Your task to perform on an android device: Clear all items from cart on amazon.com. Search for "logitech g pro" on amazon.com, select the first entry, add it to the cart, then select checkout. Image 0: 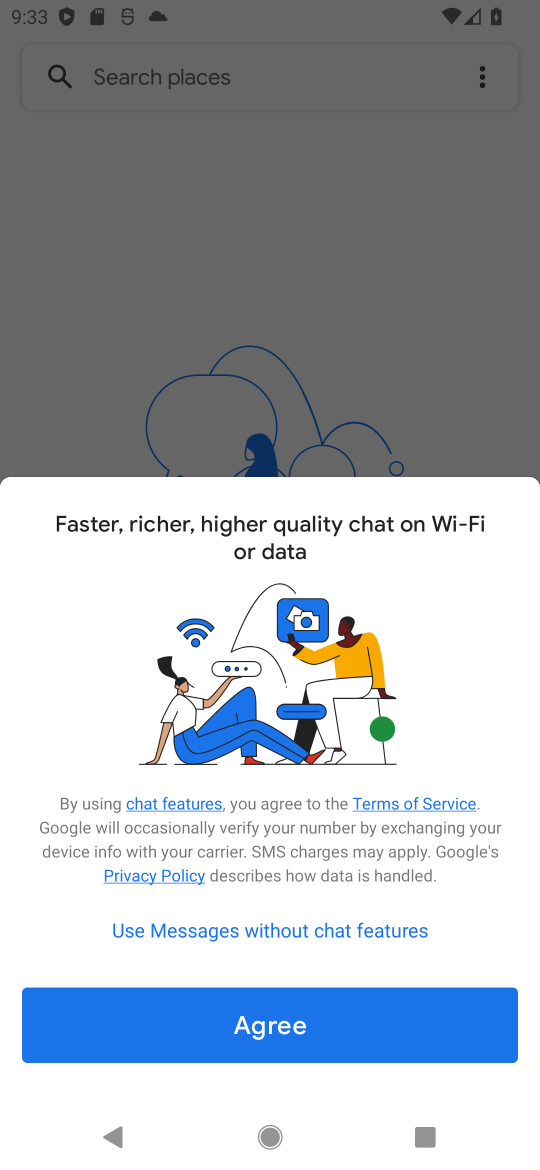
Step 0: press home button
Your task to perform on an android device: Clear all items from cart on amazon.com. Search for "logitech g pro" on amazon.com, select the first entry, add it to the cart, then select checkout. Image 1: 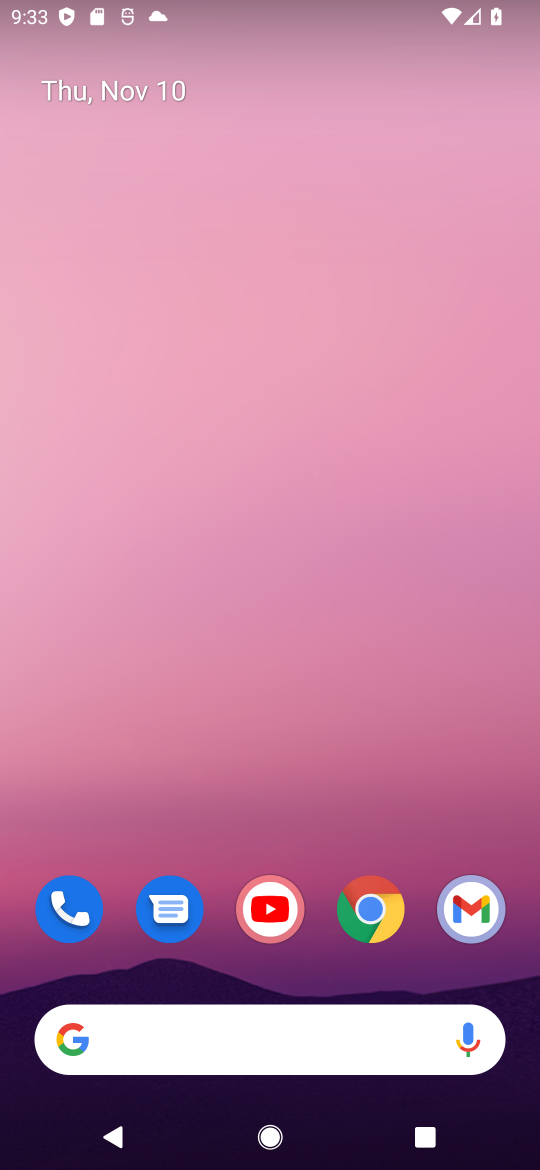
Step 1: drag from (228, 923) to (274, 342)
Your task to perform on an android device: Clear all items from cart on amazon.com. Search for "logitech g pro" on amazon.com, select the first entry, add it to the cart, then select checkout. Image 2: 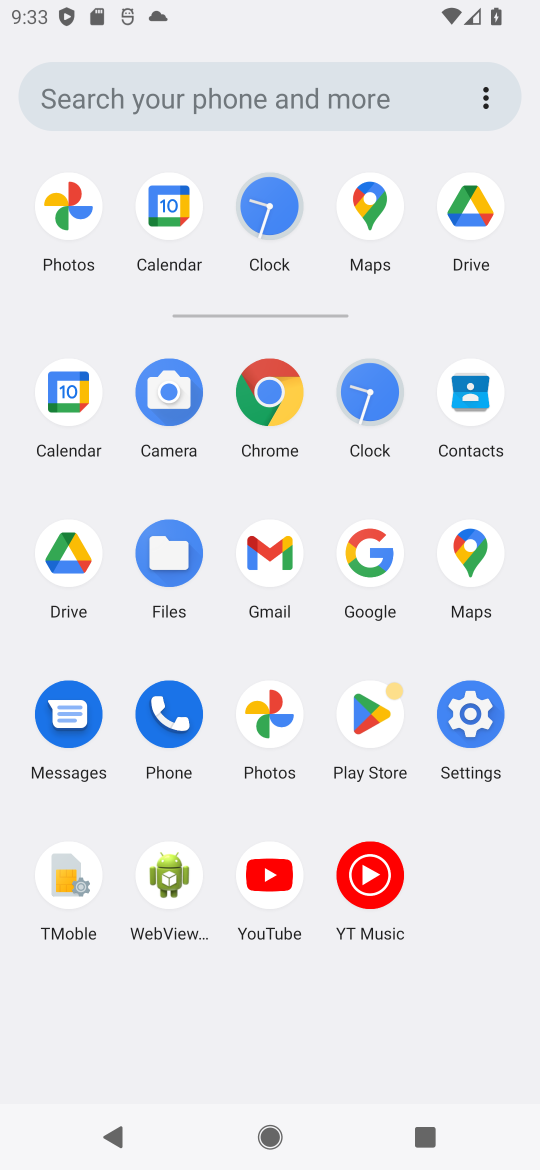
Step 2: click (362, 536)
Your task to perform on an android device: Clear all items from cart on amazon.com. Search for "logitech g pro" on amazon.com, select the first entry, add it to the cart, then select checkout. Image 3: 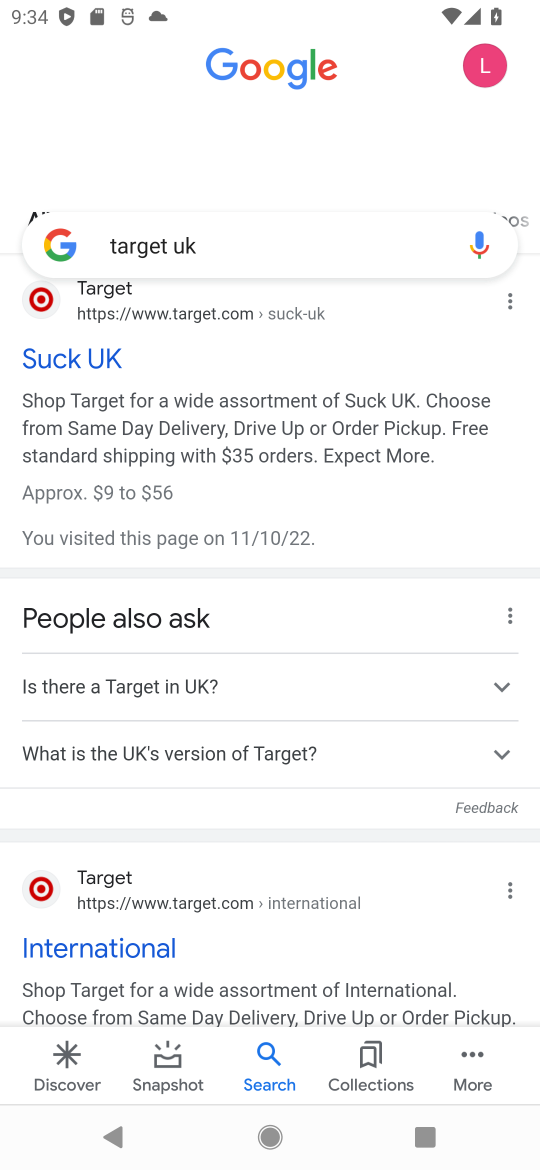
Step 3: click (269, 227)
Your task to perform on an android device: Clear all items from cart on amazon.com. Search for "logitech g pro" on amazon.com, select the first entry, add it to the cart, then select checkout. Image 4: 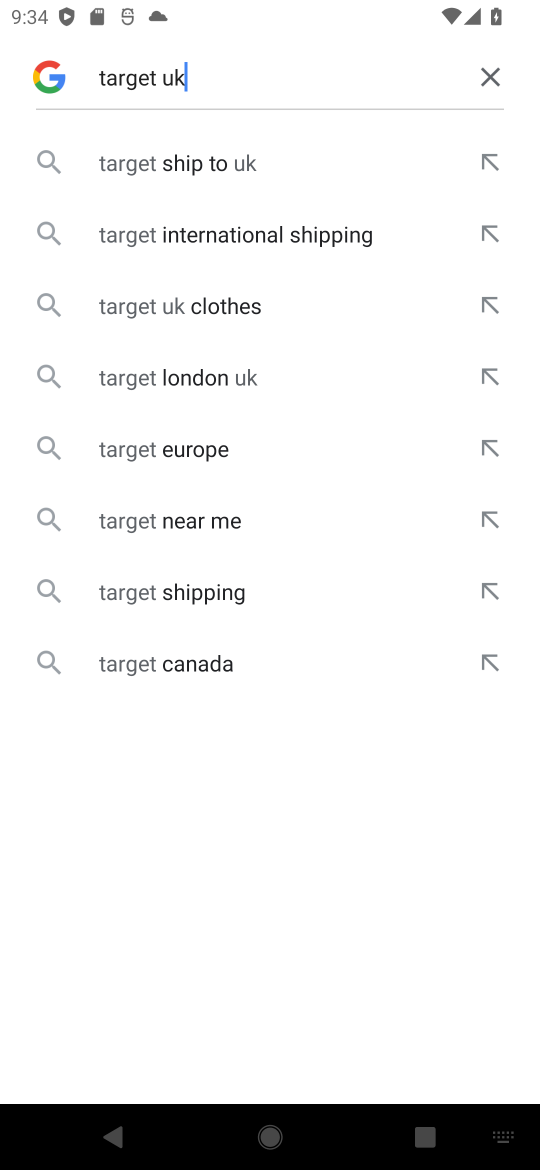
Step 4: click (478, 73)
Your task to perform on an android device: Clear all items from cart on amazon.com. Search for "logitech g pro" on amazon.com, select the first entry, add it to the cart, then select checkout. Image 5: 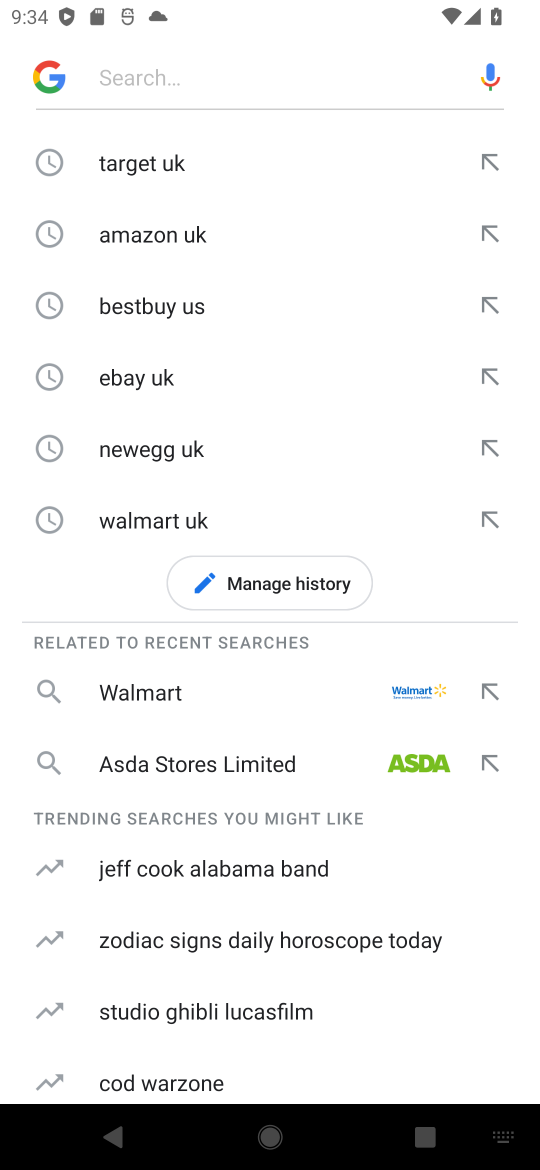
Step 5: click (304, 63)
Your task to perform on an android device: Clear all items from cart on amazon.com. Search for "logitech g pro" on amazon.com, select the first entry, add it to the cart, then select checkout. Image 6: 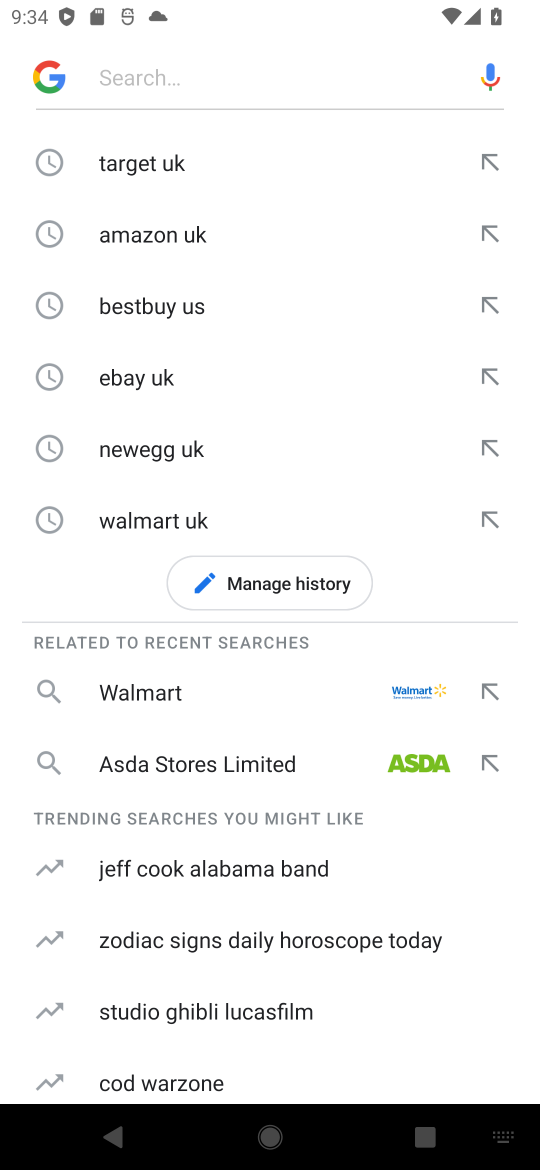
Step 6: type "amazon "
Your task to perform on an android device: Clear all items from cart on amazon.com. Search for "logitech g pro" on amazon.com, select the first entry, add it to the cart, then select checkout. Image 7: 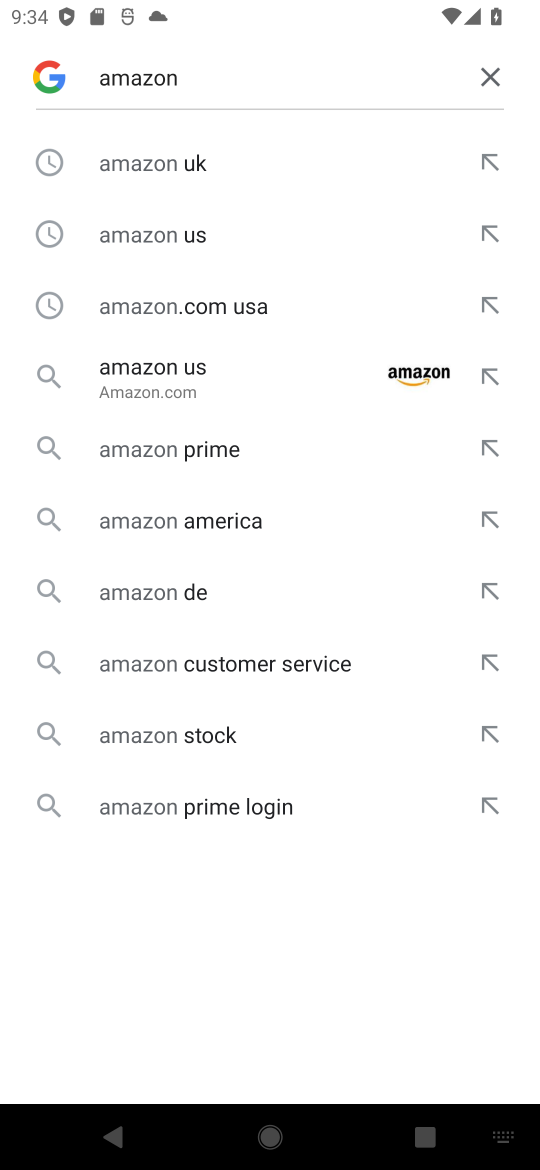
Step 7: click (199, 154)
Your task to perform on an android device: Clear all items from cart on amazon.com. Search for "logitech g pro" on amazon.com, select the first entry, add it to the cart, then select checkout. Image 8: 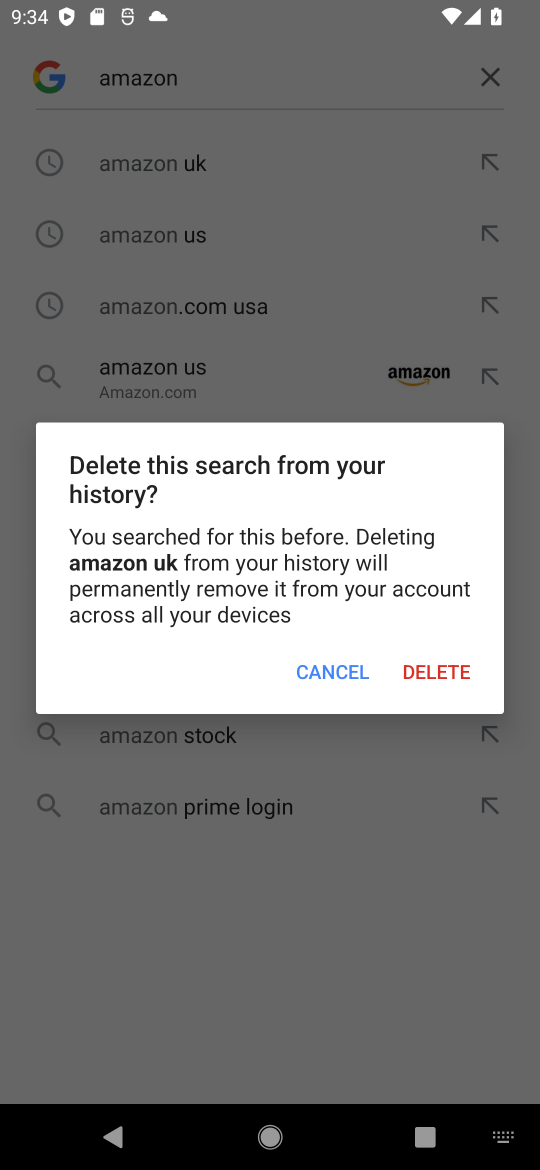
Step 8: click (324, 685)
Your task to perform on an android device: Clear all items from cart on amazon.com. Search for "logitech g pro" on amazon.com, select the first entry, add it to the cart, then select checkout. Image 9: 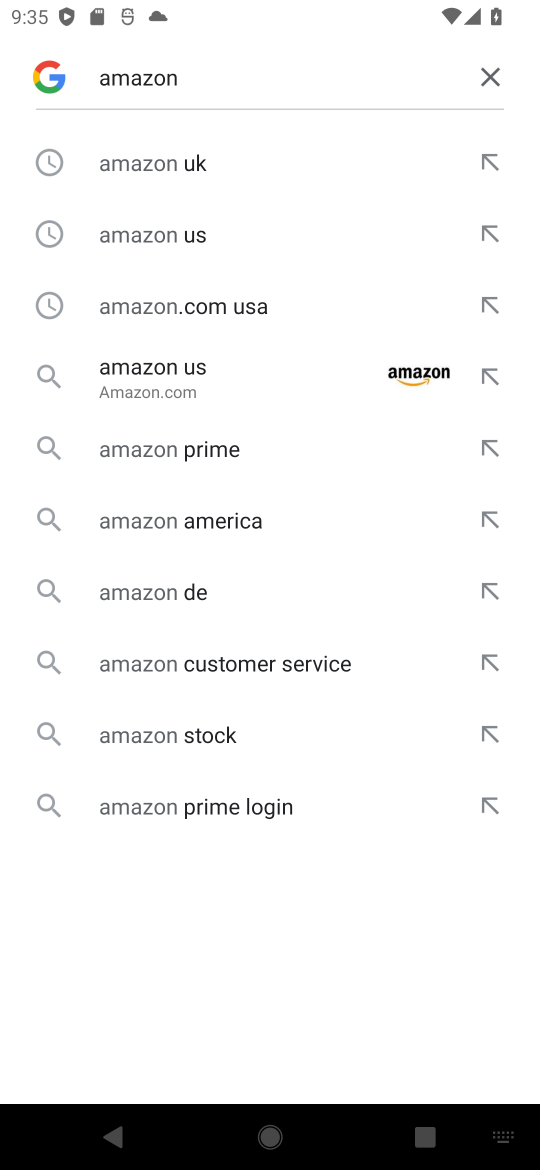
Step 9: click (194, 233)
Your task to perform on an android device: Clear all items from cart on amazon.com. Search for "logitech g pro" on amazon.com, select the first entry, add it to the cart, then select checkout. Image 10: 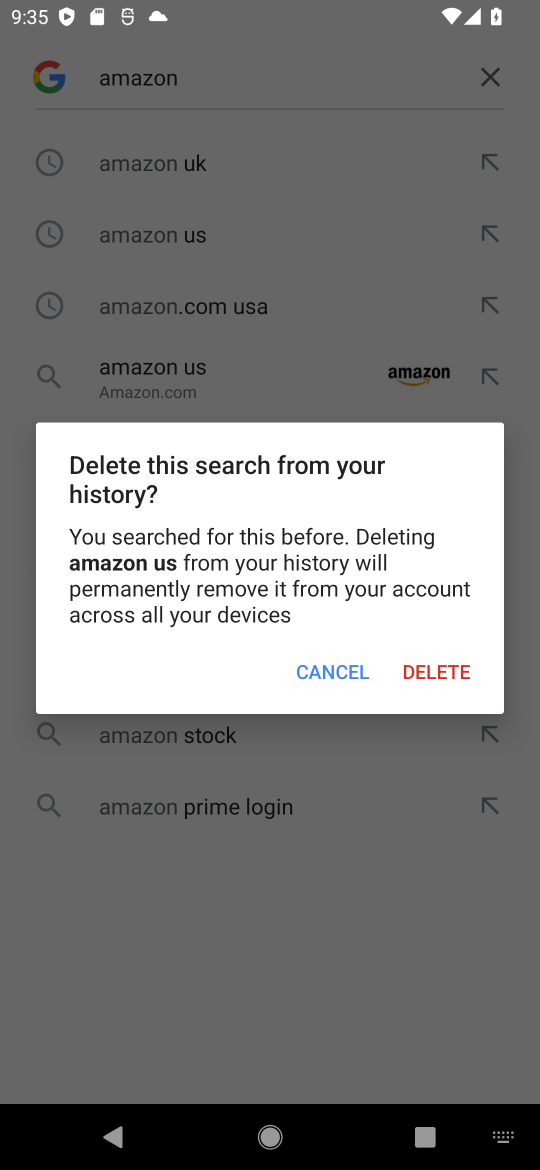
Step 10: click (310, 679)
Your task to perform on an android device: Clear all items from cart on amazon.com. Search for "logitech g pro" on amazon.com, select the first entry, add it to the cart, then select checkout. Image 11: 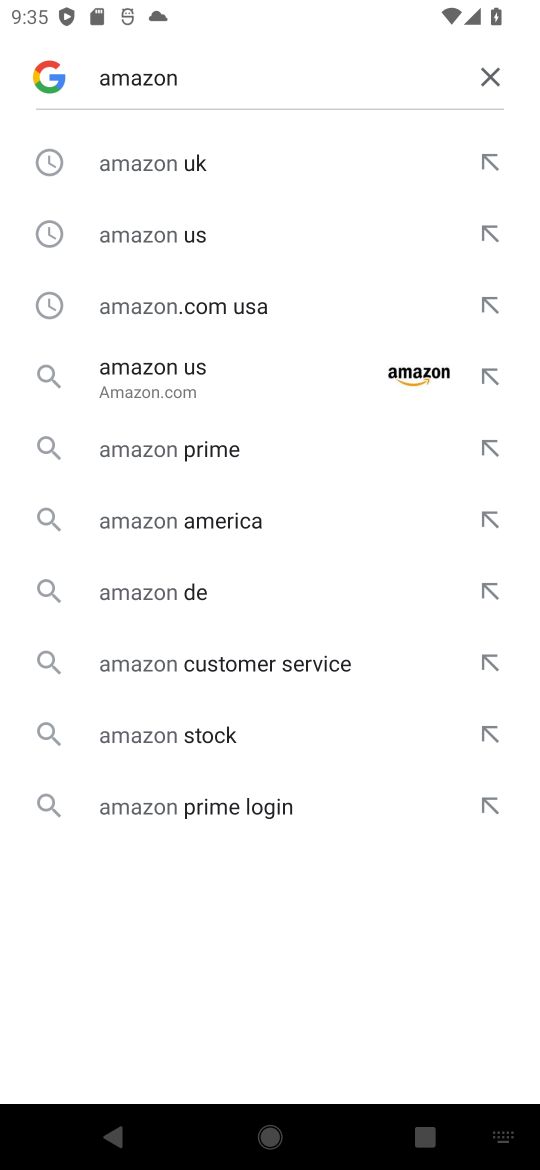
Step 11: click (199, 315)
Your task to perform on an android device: Clear all items from cart on amazon.com. Search for "logitech g pro" on amazon.com, select the first entry, add it to the cart, then select checkout. Image 12: 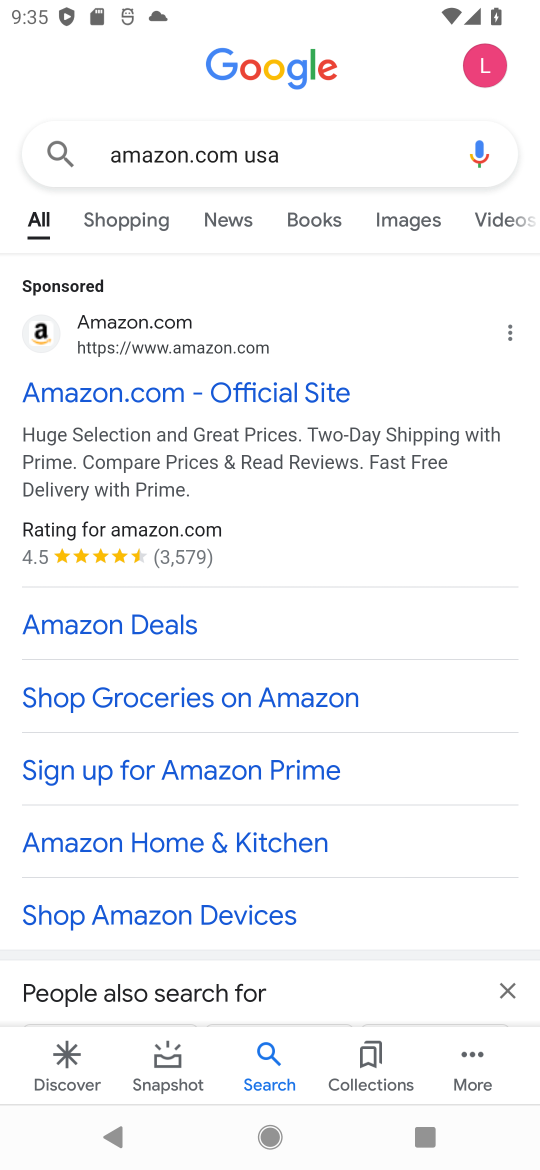
Step 12: click (39, 320)
Your task to perform on an android device: Clear all items from cart on amazon.com. Search for "logitech g pro" on amazon.com, select the first entry, add it to the cart, then select checkout. Image 13: 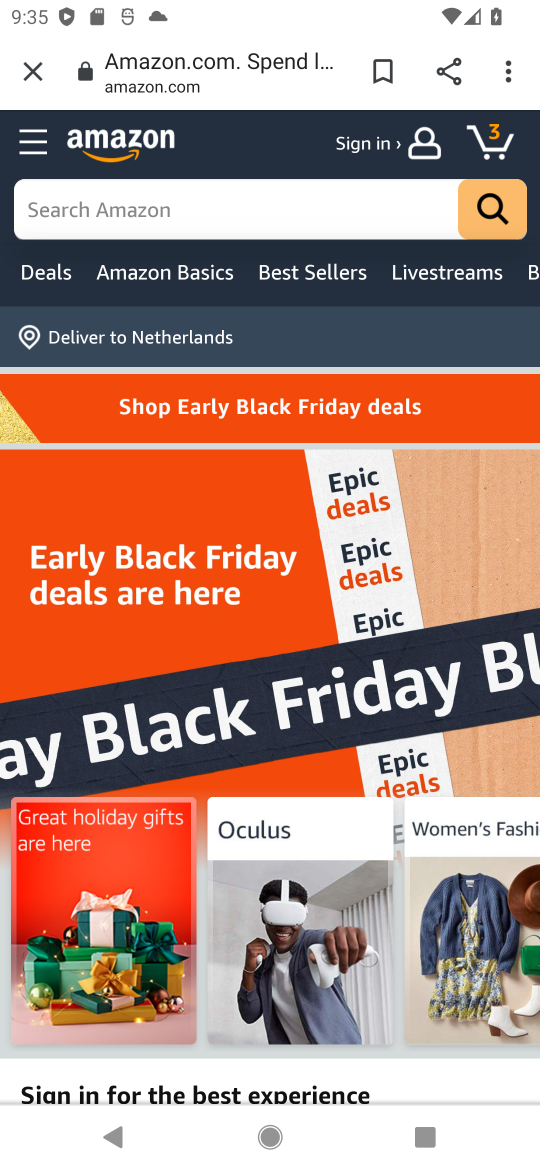
Step 13: click (184, 192)
Your task to perform on an android device: Clear all items from cart on amazon.com. Search for "logitech g pro" on amazon.com, select the first entry, add it to the cart, then select checkout. Image 14: 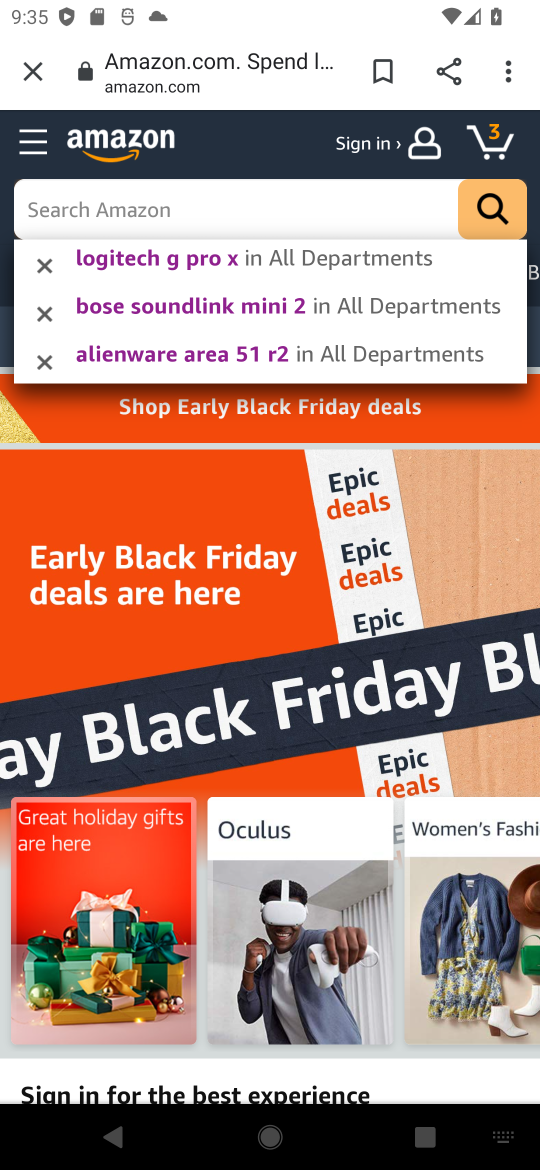
Step 14: type "logitech g pro "
Your task to perform on an android device: Clear all items from cart on amazon.com. Search for "logitech g pro" on amazon.com, select the first entry, add it to the cart, then select checkout. Image 15: 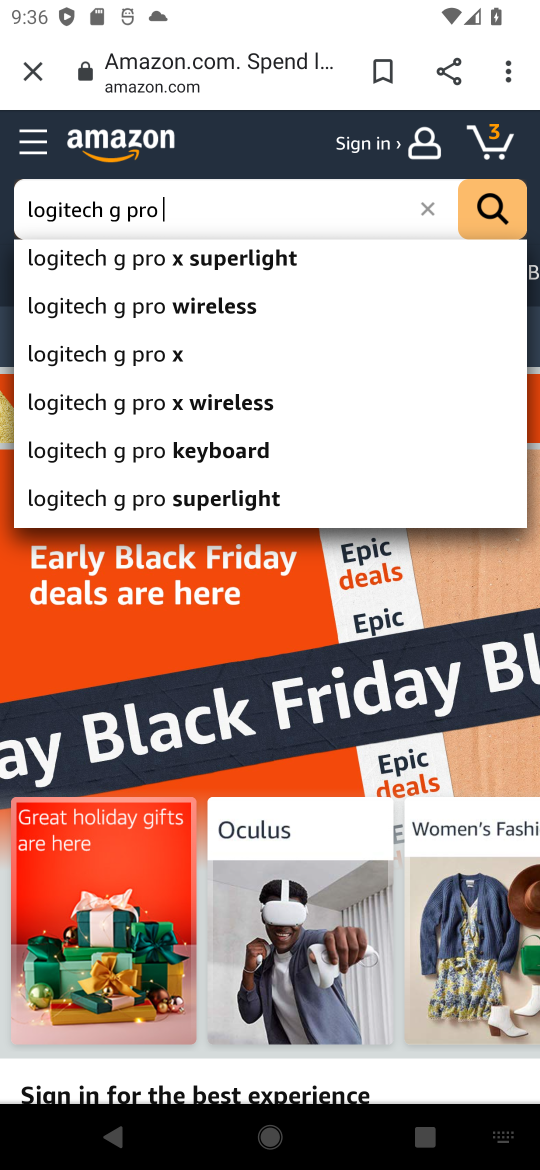
Step 15: click (117, 350)
Your task to perform on an android device: Clear all items from cart on amazon.com. Search for "logitech g pro" on amazon.com, select the first entry, add it to the cart, then select checkout. Image 16: 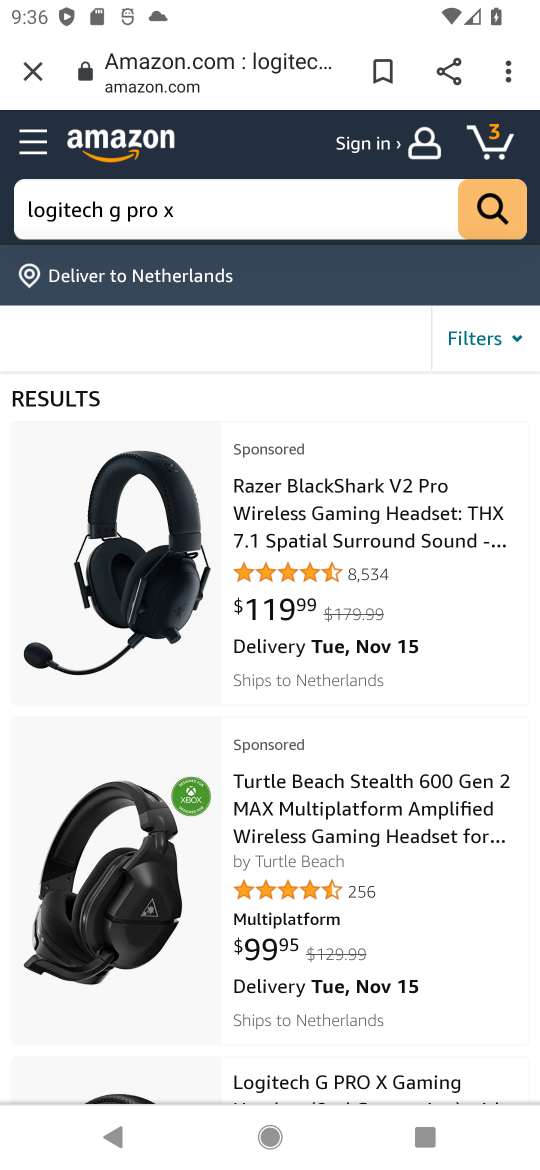
Step 16: drag from (359, 1018) to (375, 570)
Your task to perform on an android device: Clear all items from cart on amazon.com. Search for "logitech g pro" on amazon.com, select the first entry, add it to the cart, then select checkout. Image 17: 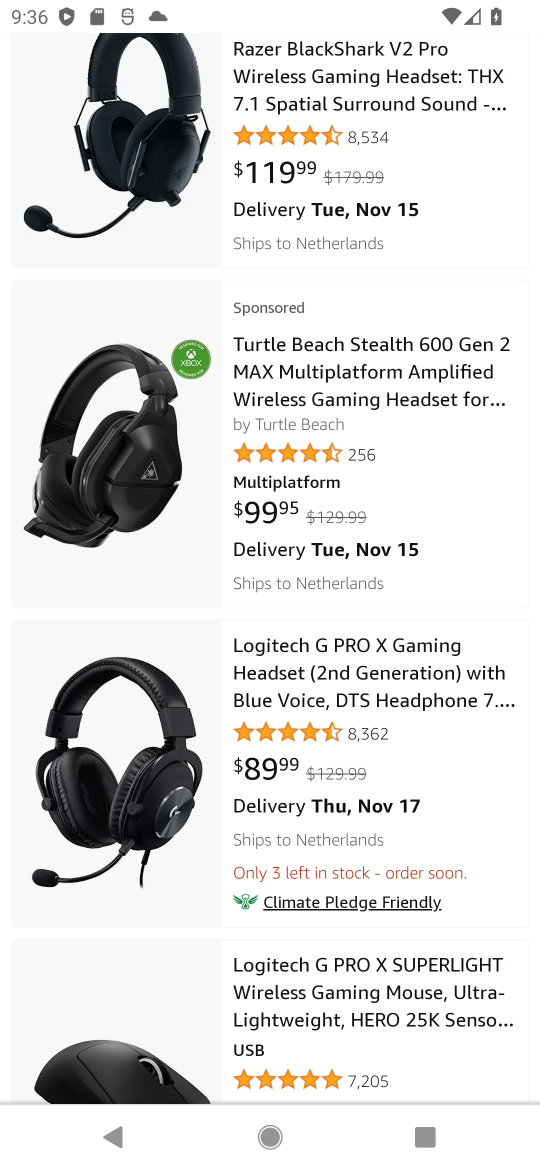
Step 17: click (352, 744)
Your task to perform on an android device: Clear all items from cart on amazon.com. Search for "logitech g pro" on amazon.com, select the first entry, add it to the cart, then select checkout. Image 18: 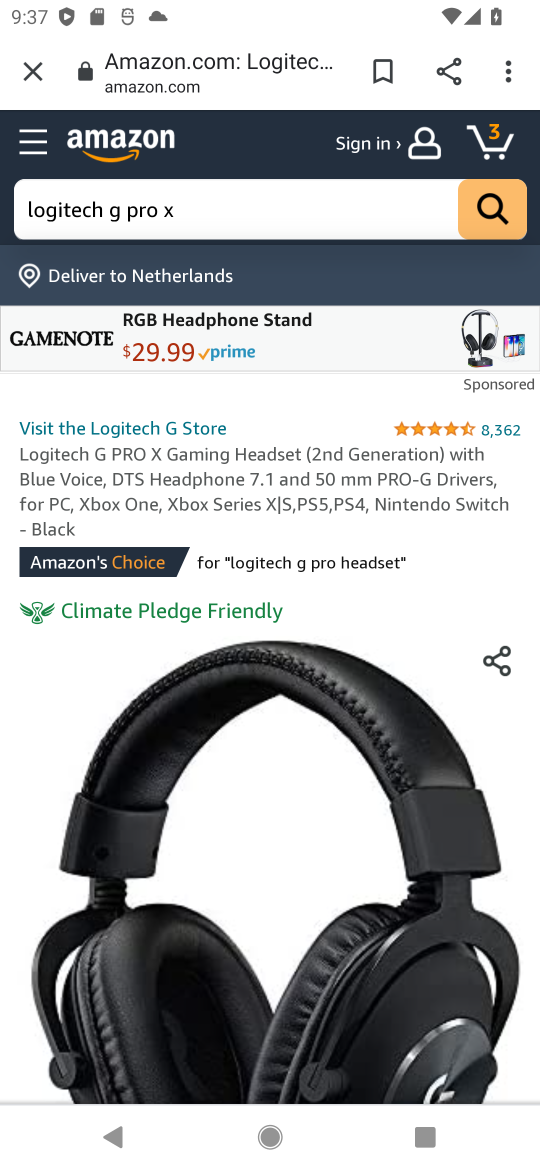
Step 18: drag from (261, 786) to (308, 323)
Your task to perform on an android device: Clear all items from cart on amazon.com. Search for "logitech g pro" on amazon.com, select the first entry, add it to the cart, then select checkout. Image 19: 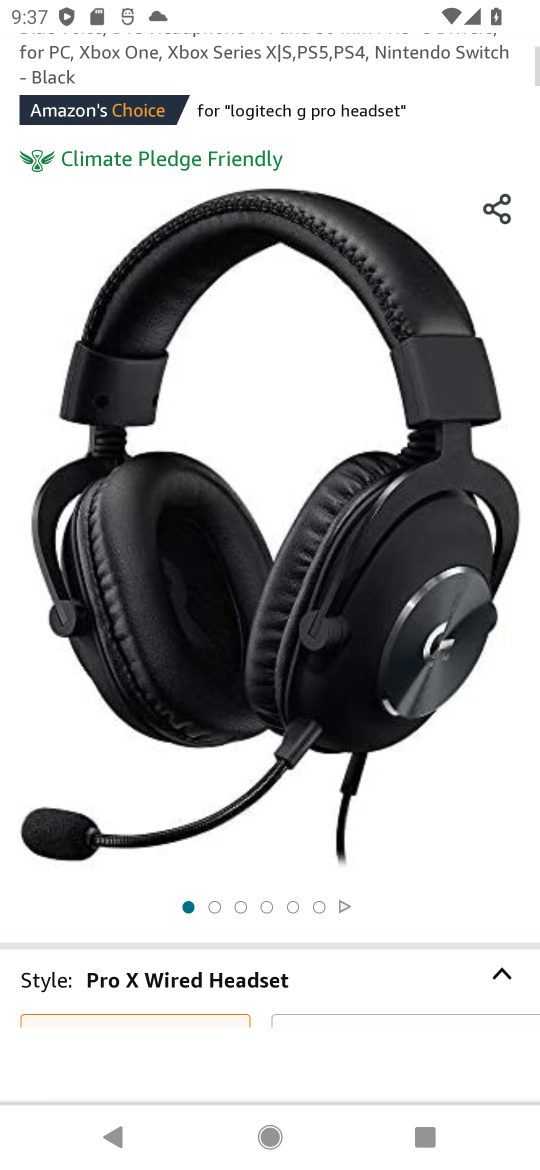
Step 19: drag from (345, 824) to (360, 298)
Your task to perform on an android device: Clear all items from cart on amazon.com. Search for "logitech g pro" on amazon.com, select the first entry, add it to the cart, then select checkout. Image 20: 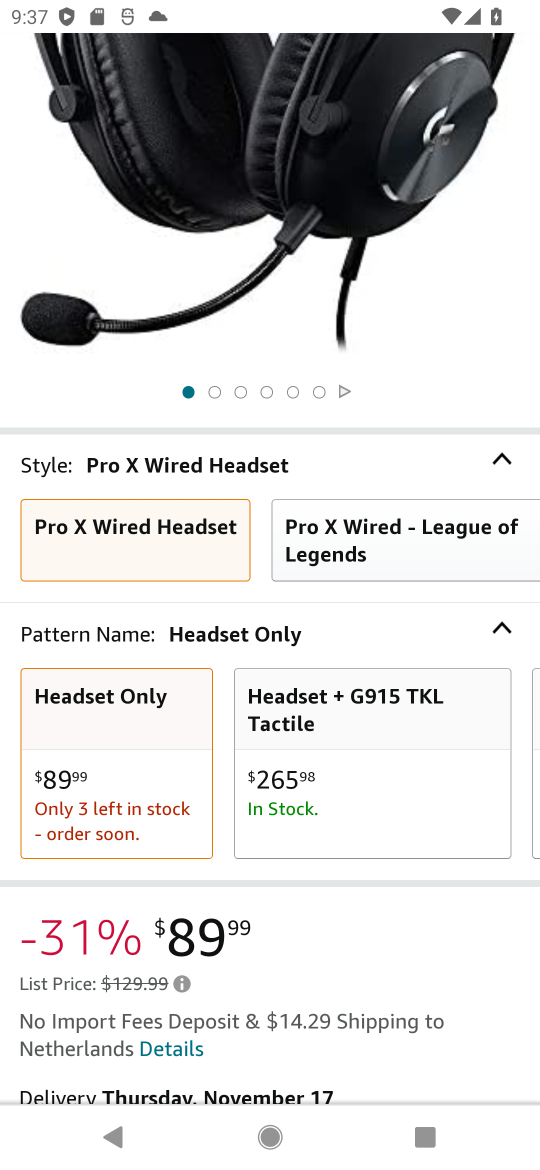
Step 20: drag from (242, 1012) to (323, 217)
Your task to perform on an android device: Clear all items from cart on amazon.com. Search for "logitech g pro" on amazon.com, select the first entry, add it to the cart, then select checkout. Image 21: 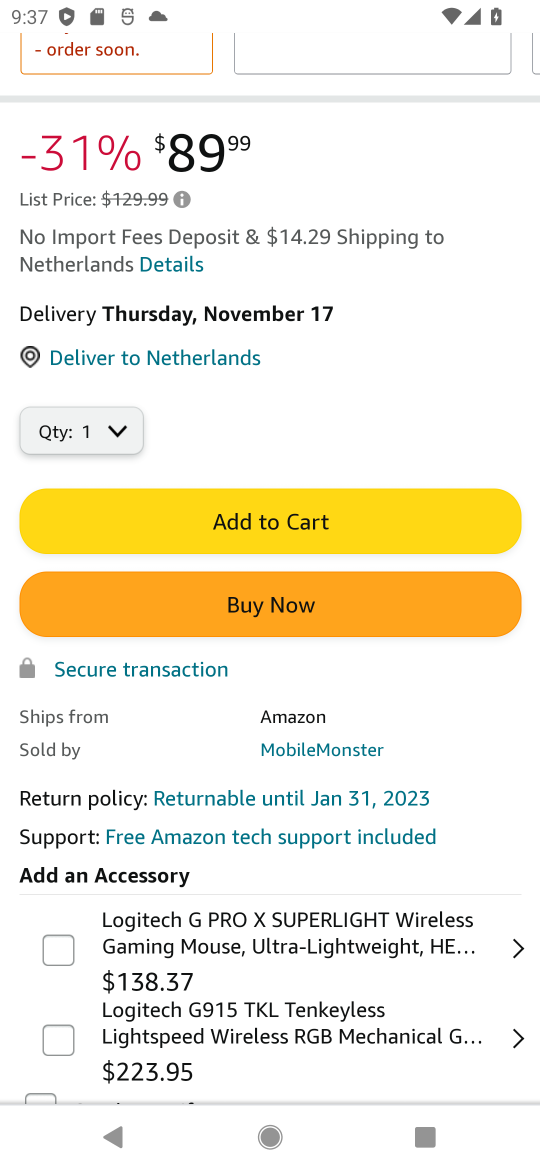
Step 21: click (372, 506)
Your task to perform on an android device: Clear all items from cart on amazon.com. Search for "logitech g pro" on amazon.com, select the first entry, add it to the cart, then select checkout. Image 22: 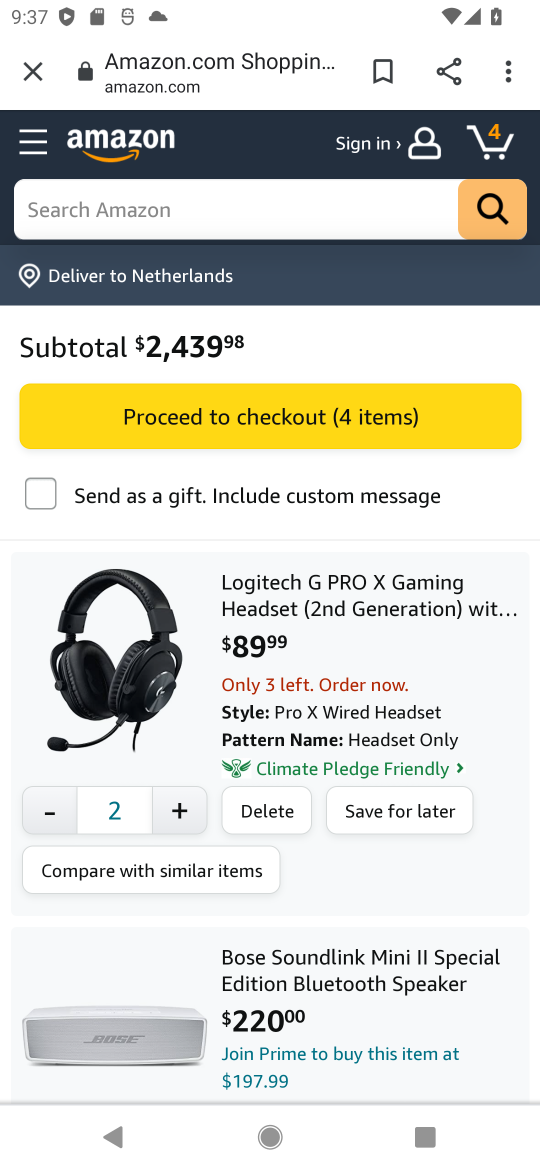
Step 22: task complete